Your task to perform on an android device: Open display settings Image 0: 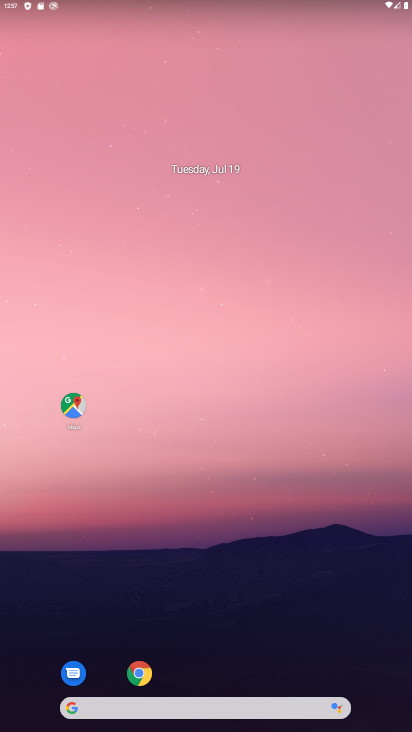
Step 0: drag from (199, 700) to (94, 34)
Your task to perform on an android device: Open display settings Image 1: 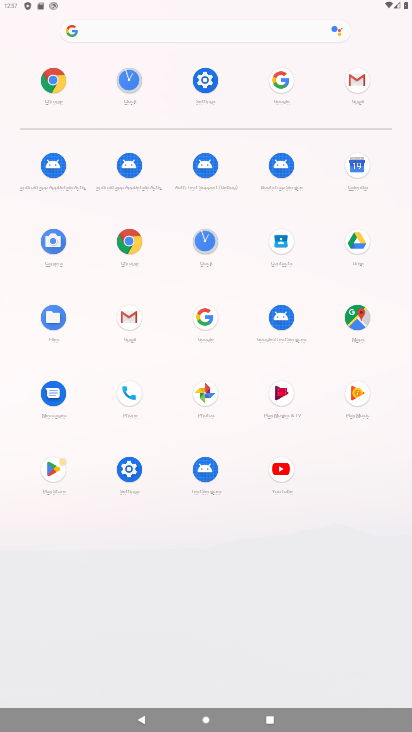
Step 1: click (190, 62)
Your task to perform on an android device: Open display settings Image 2: 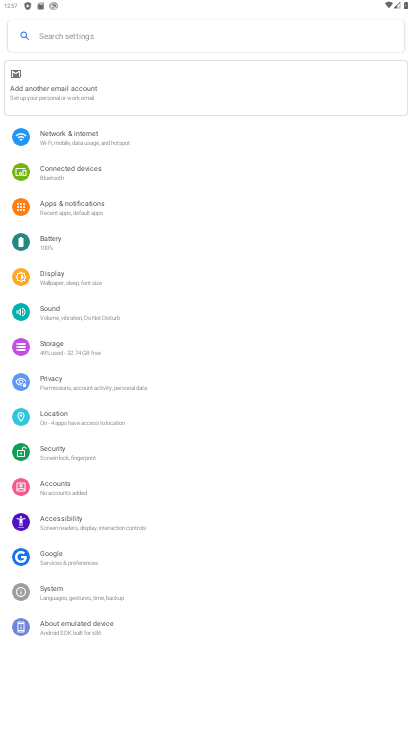
Step 2: click (61, 268)
Your task to perform on an android device: Open display settings Image 3: 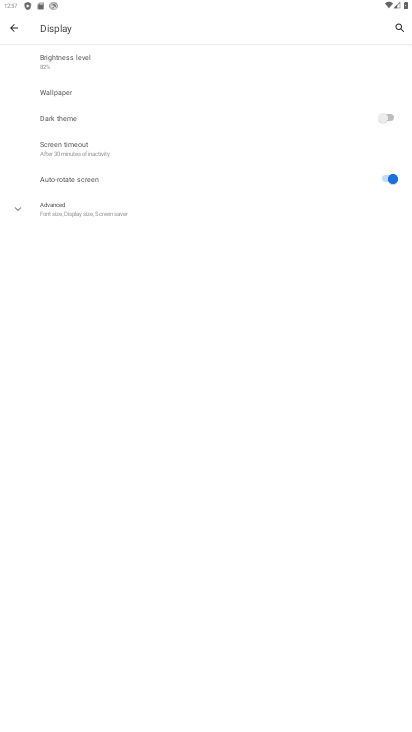
Step 3: click (65, 204)
Your task to perform on an android device: Open display settings Image 4: 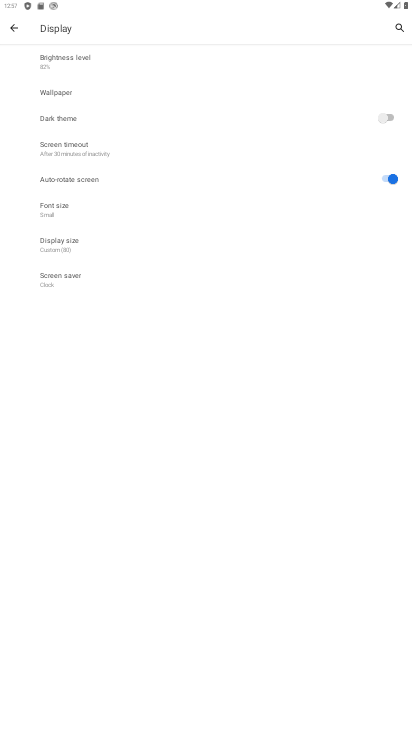
Step 4: task complete